Your task to perform on an android device: Open calendar and show me the first week of next month Image 0: 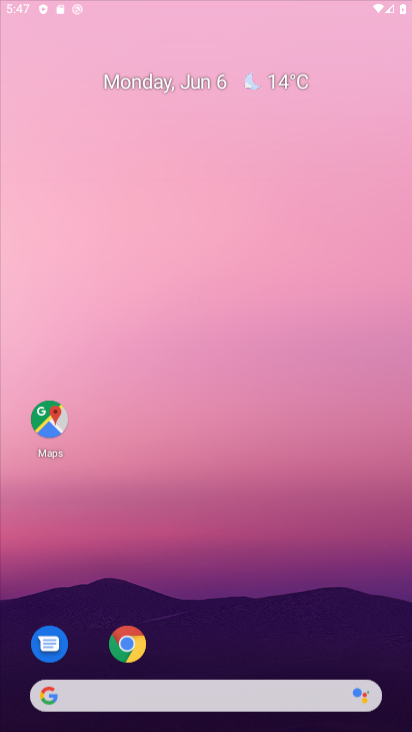
Step 0: press back button
Your task to perform on an android device: Open calendar and show me the first week of next month Image 1: 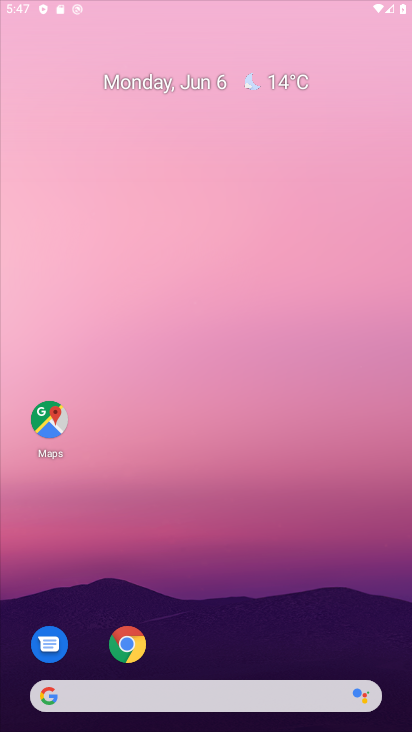
Step 1: drag from (213, 688) to (113, 144)
Your task to perform on an android device: Open calendar and show me the first week of next month Image 2: 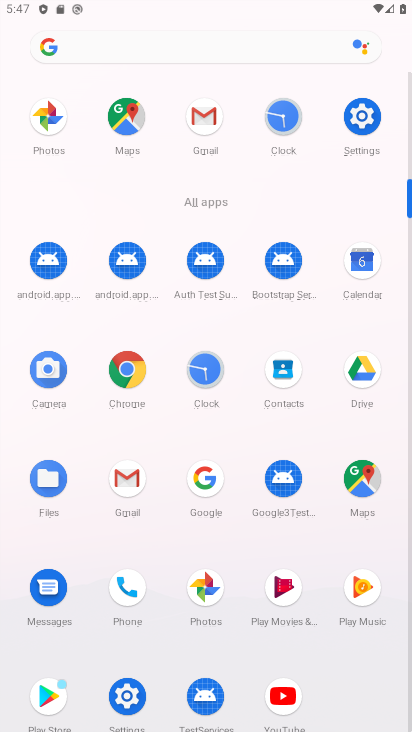
Step 2: click (370, 255)
Your task to perform on an android device: Open calendar and show me the first week of next month Image 3: 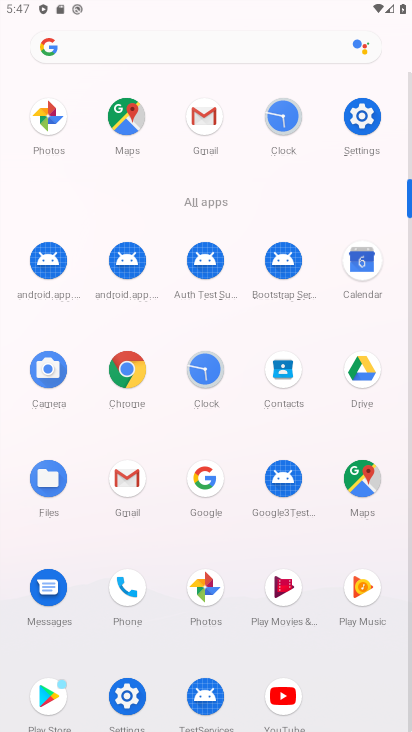
Step 3: click (367, 266)
Your task to perform on an android device: Open calendar and show me the first week of next month Image 4: 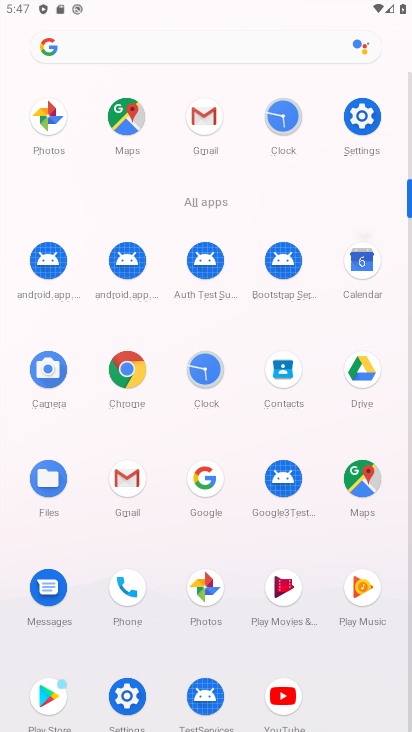
Step 4: click (363, 271)
Your task to perform on an android device: Open calendar and show me the first week of next month Image 5: 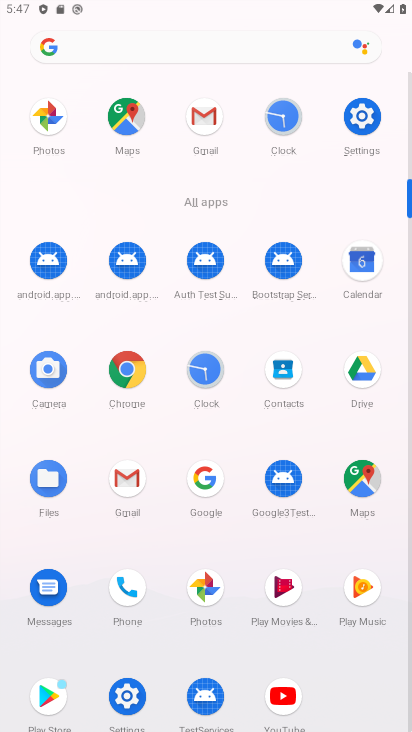
Step 5: click (363, 271)
Your task to perform on an android device: Open calendar and show me the first week of next month Image 6: 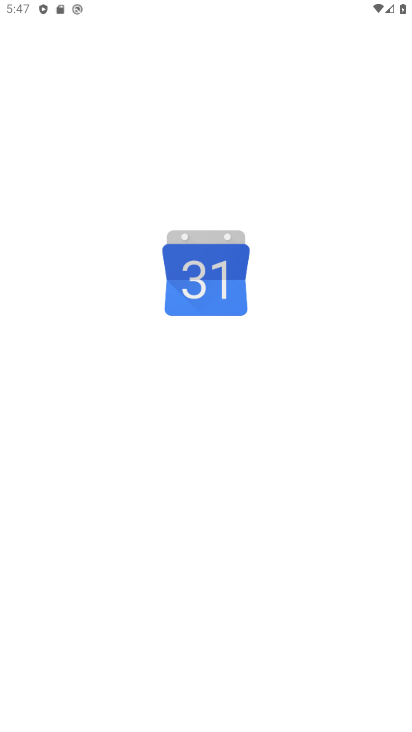
Step 6: click (359, 272)
Your task to perform on an android device: Open calendar and show me the first week of next month Image 7: 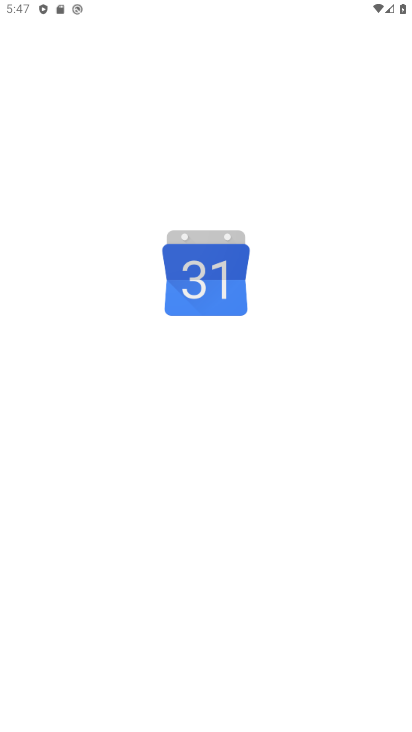
Step 7: click (365, 256)
Your task to perform on an android device: Open calendar and show me the first week of next month Image 8: 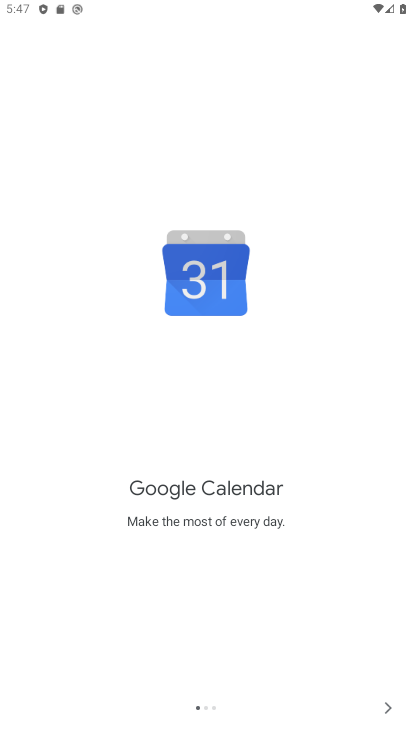
Step 8: click (397, 708)
Your task to perform on an android device: Open calendar and show me the first week of next month Image 9: 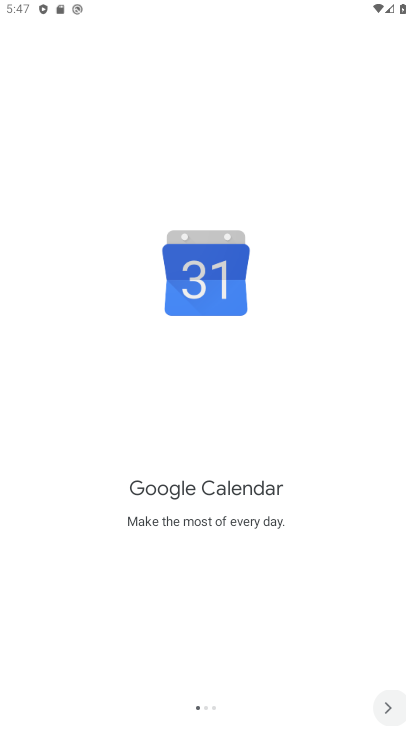
Step 9: click (397, 708)
Your task to perform on an android device: Open calendar and show me the first week of next month Image 10: 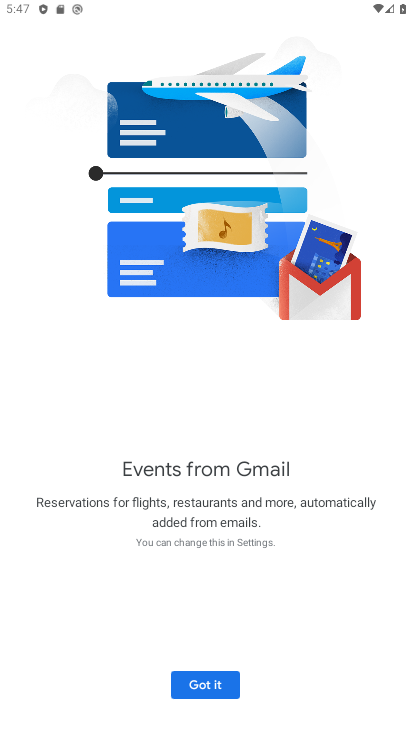
Step 10: click (379, 716)
Your task to perform on an android device: Open calendar and show me the first week of next month Image 11: 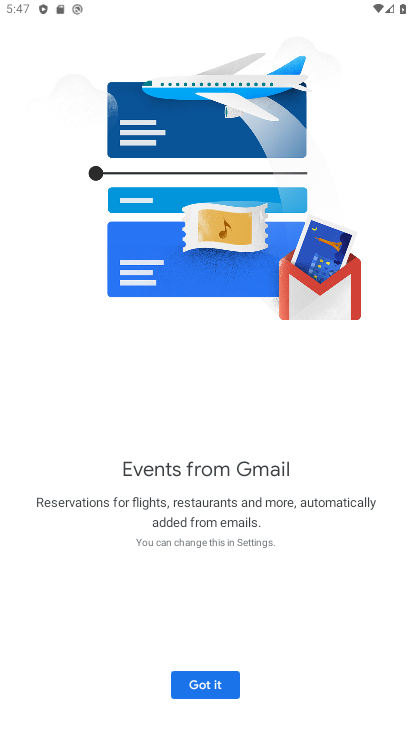
Step 11: click (381, 714)
Your task to perform on an android device: Open calendar and show me the first week of next month Image 12: 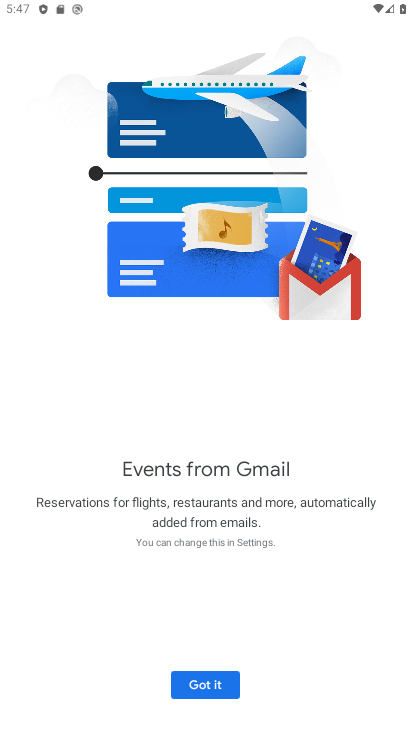
Step 12: click (231, 684)
Your task to perform on an android device: Open calendar and show me the first week of next month Image 13: 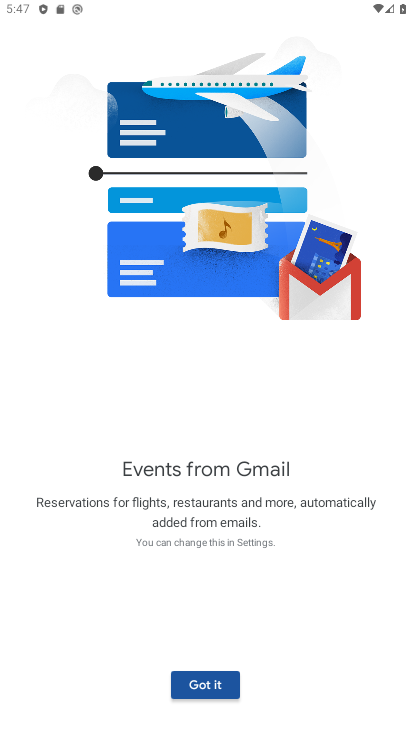
Step 13: click (223, 684)
Your task to perform on an android device: Open calendar and show me the first week of next month Image 14: 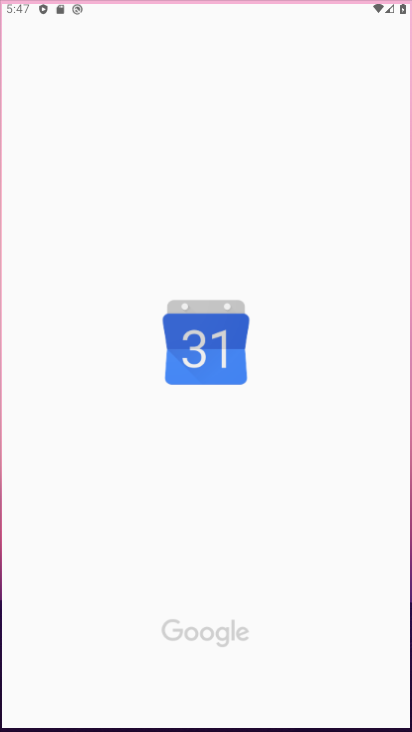
Step 14: click (212, 687)
Your task to perform on an android device: Open calendar and show me the first week of next month Image 15: 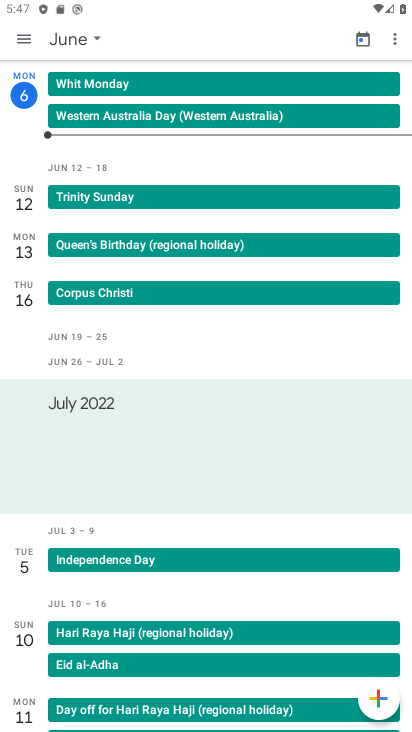
Step 15: click (102, 37)
Your task to perform on an android device: Open calendar and show me the first week of next month Image 16: 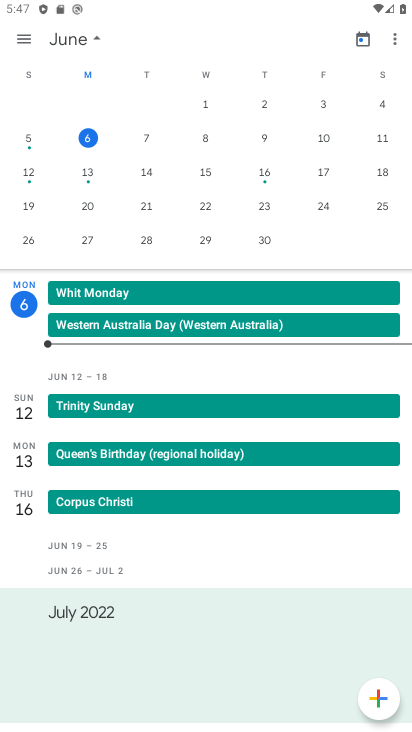
Step 16: drag from (248, 179) to (83, 159)
Your task to perform on an android device: Open calendar and show me the first week of next month Image 17: 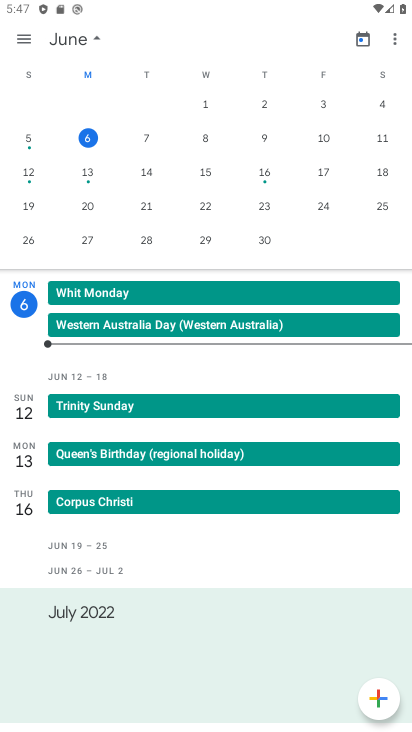
Step 17: drag from (195, 187) to (41, 226)
Your task to perform on an android device: Open calendar and show me the first week of next month Image 18: 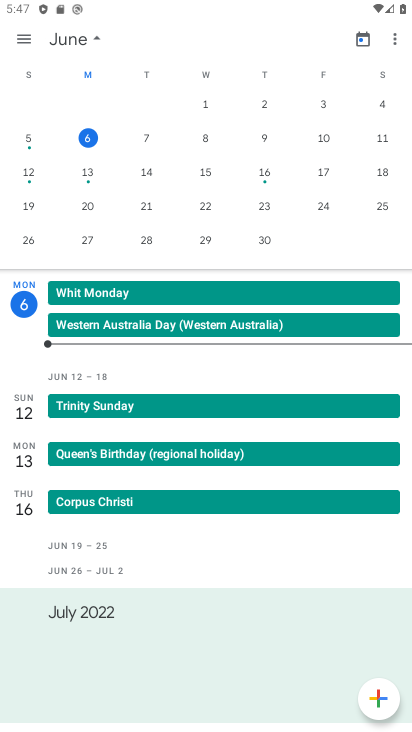
Step 18: drag from (243, 174) to (26, 220)
Your task to perform on an android device: Open calendar and show me the first week of next month Image 19: 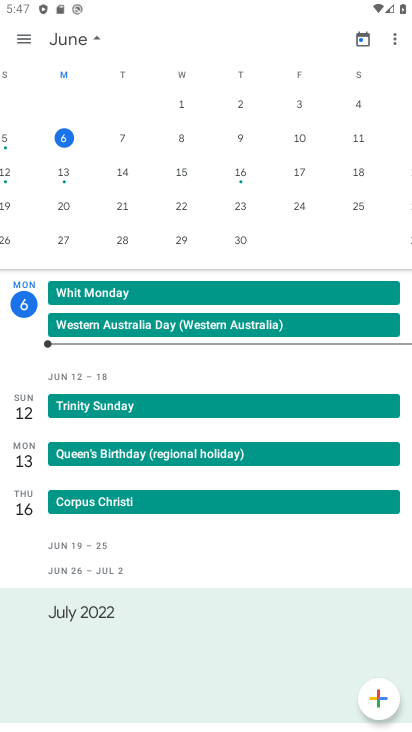
Step 19: drag from (199, 153) to (42, 226)
Your task to perform on an android device: Open calendar and show me the first week of next month Image 20: 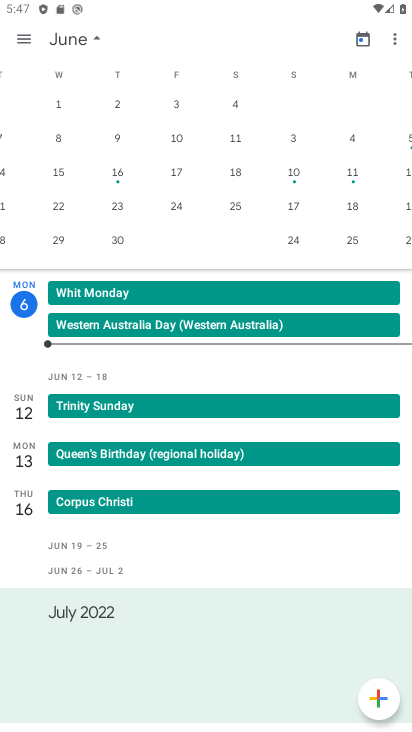
Step 20: drag from (244, 203) to (12, 210)
Your task to perform on an android device: Open calendar and show me the first week of next month Image 21: 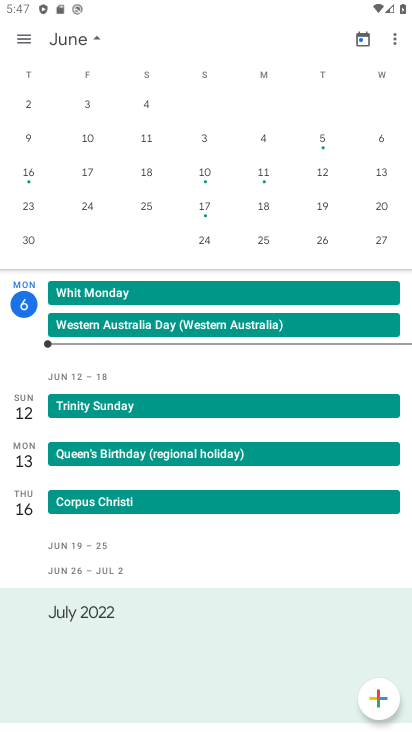
Step 21: drag from (202, 173) to (30, 189)
Your task to perform on an android device: Open calendar and show me the first week of next month Image 22: 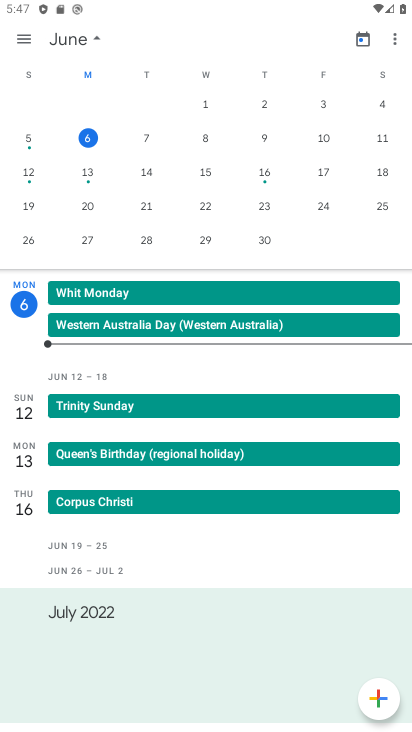
Step 22: drag from (178, 157) to (22, 209)
Your task to perform on an android device: Open calendar and show me the first week of next month Image 23: 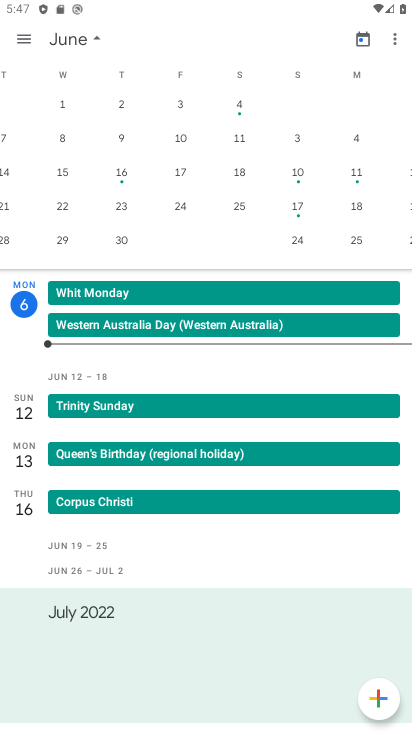
Step 23: drag from (254, 170) to (56, 202)
Your task to perform on an android device: Open calendar and show me the first week of next month Image 24: 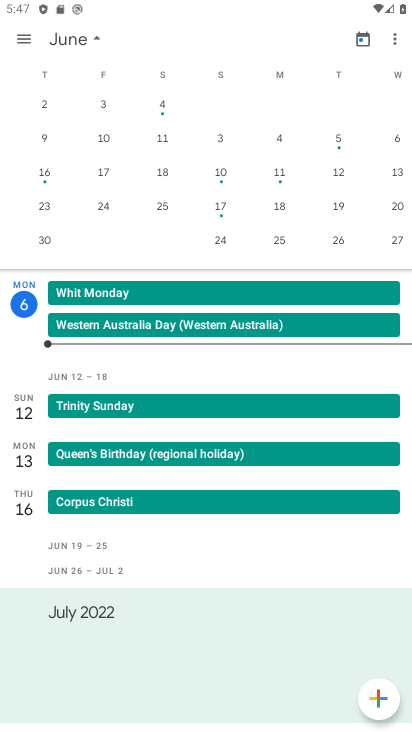
Step 24: drag from (345, 167) to (31, 182)
Your task to perform on an android device: Open calendar and show me the first week of next month Image 25: 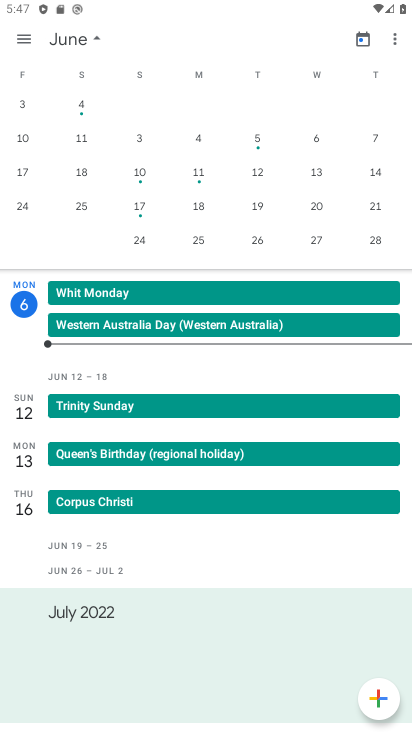
Step 25: drag from (335, 154) to (9, 191)
Your task to perform on an android device: Open calendar and show me the first week of next month Image 26: 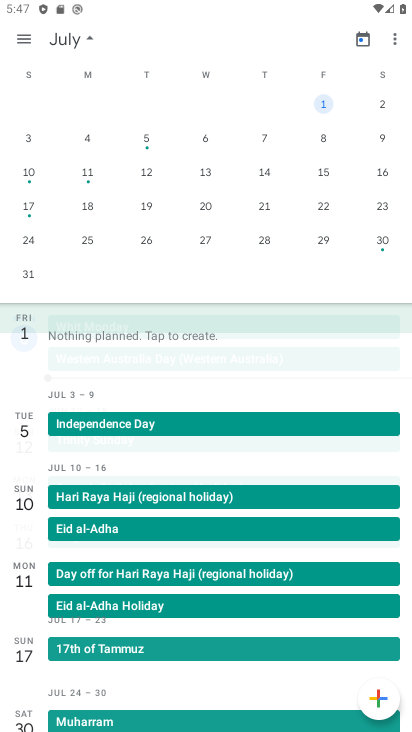
Step 26: drag from (379, 155) to (67, 148)
Your task to perform on an android device: Open calendar and show me the first week of next month Image 27: 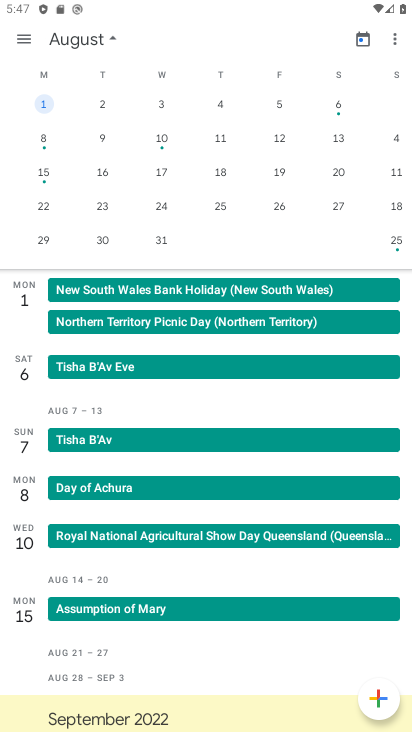
Step 27: click (56, 183)
Your task to perform on an android device: Open calendar and show me the first week of next month Image 28: 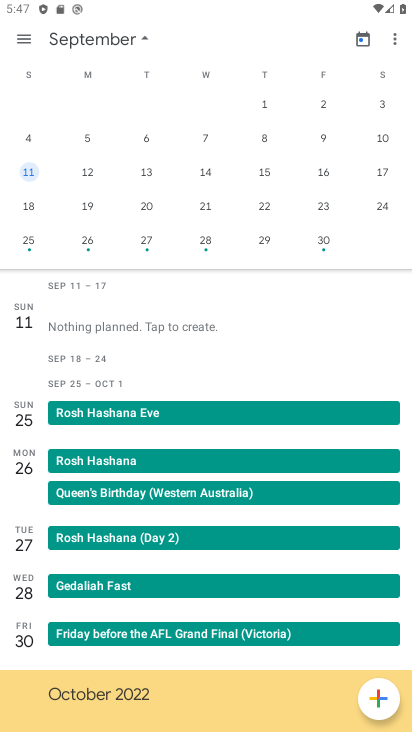
Step 28: task complete